Your task to perform on an android device: turn off javascript in the chrome app Image 0: 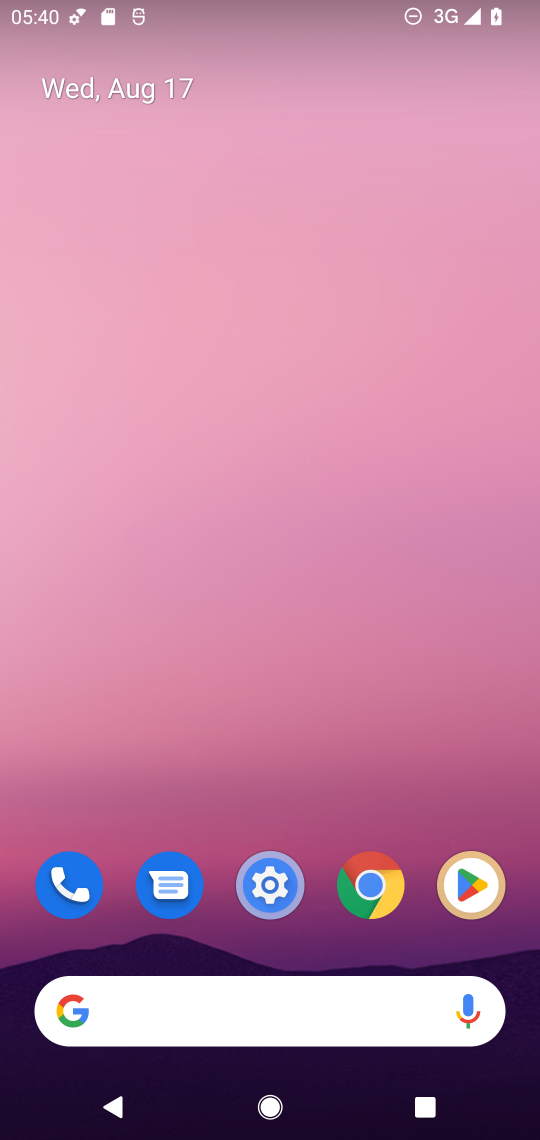
Step 0: drag from (433, 818) to (506, 148)
Your task to perform on an android device: turn off javascript in the chrome app Image 1: 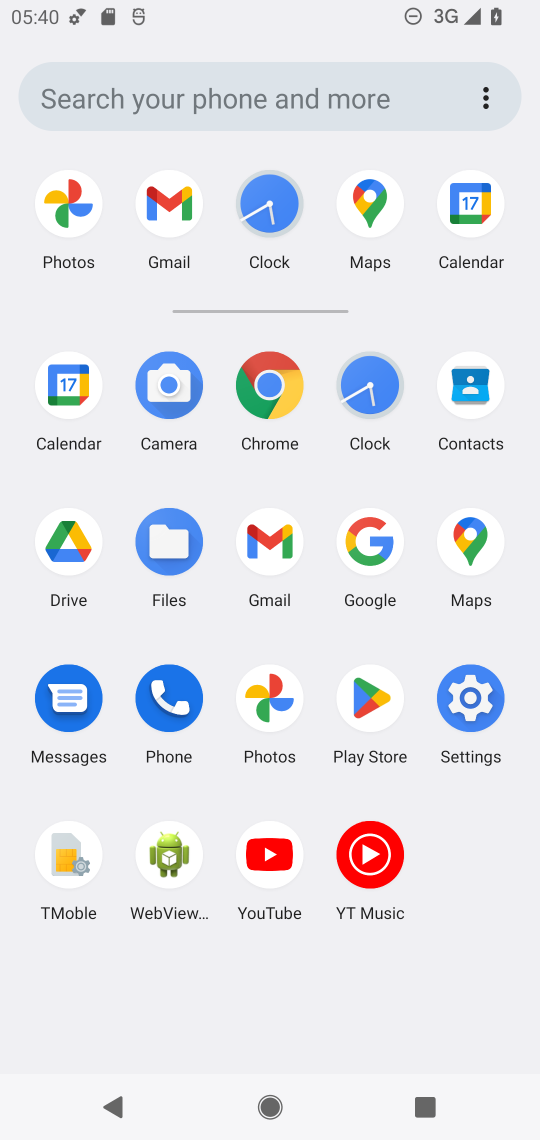
Step 1: click (269, 385)
Your task to perform on an android device: turn off javascript in the chrome app Image 2: 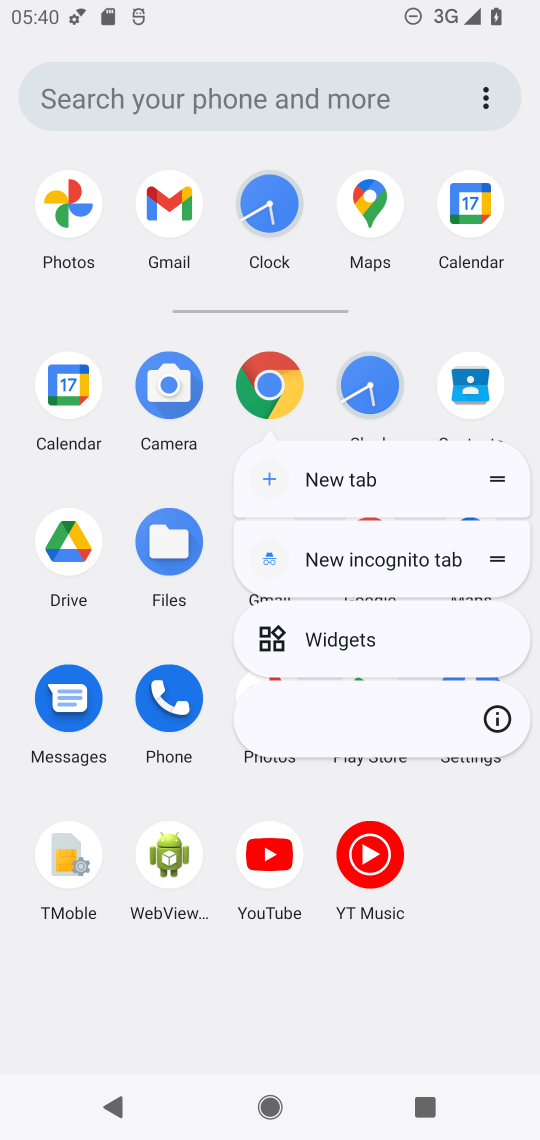
Step 2: click (269, 385)
Your task to perform on an android device: turn off javascript in the chrome app Image 3: 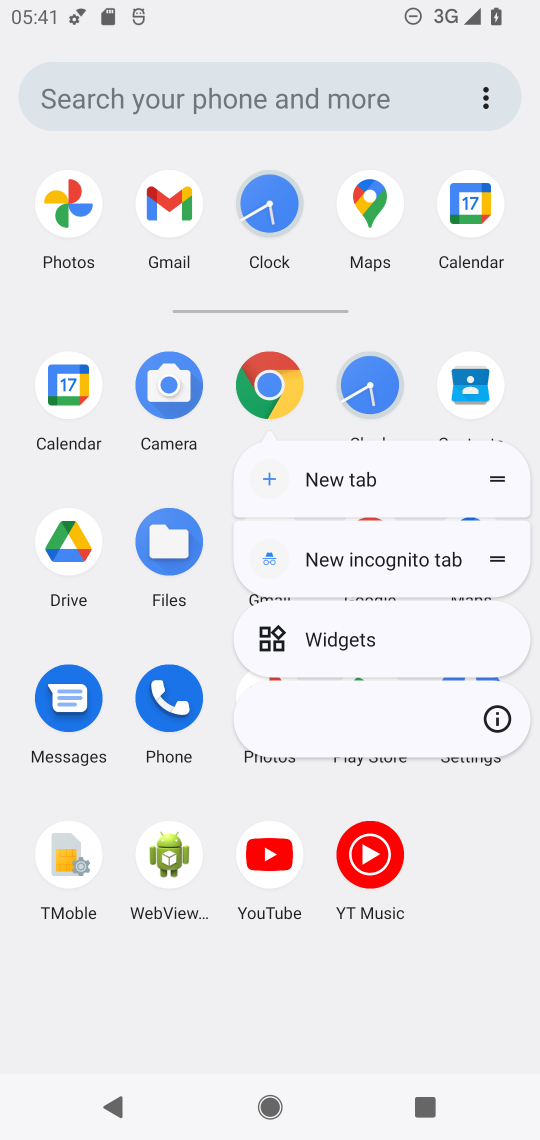
Step 3: click (329, 336)
Your task to perform on an android device: turn off javascript in the chrome app Image 4: 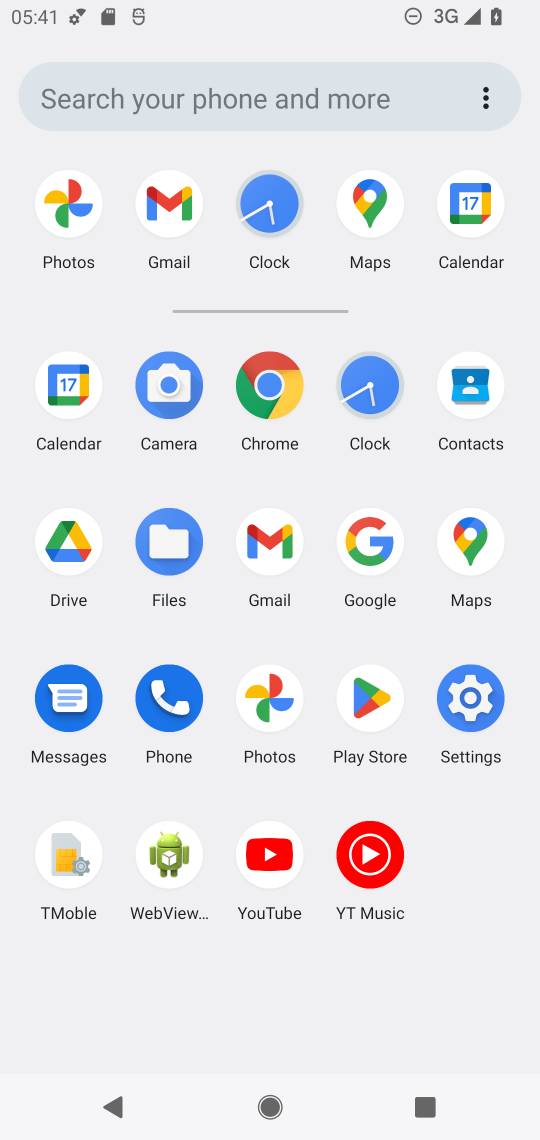
Step 4: click (270, 381)
Your task to perform on an android device: turn off javascript in the chrome app Image 5: 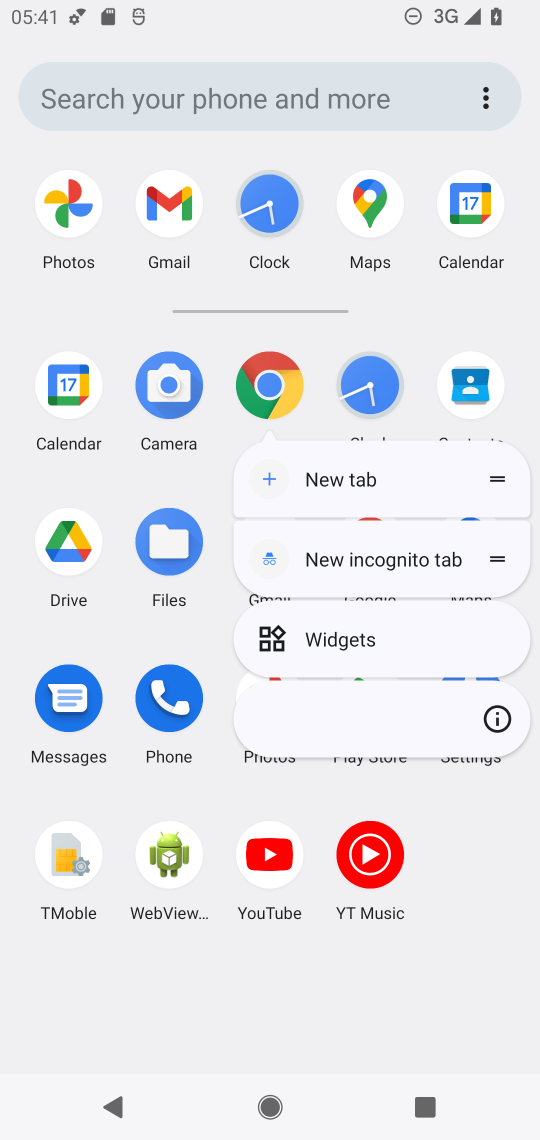
Step 5: click (402, 993)
Your task to perform on an android device: turn off javascript in the chrome app Image 6: 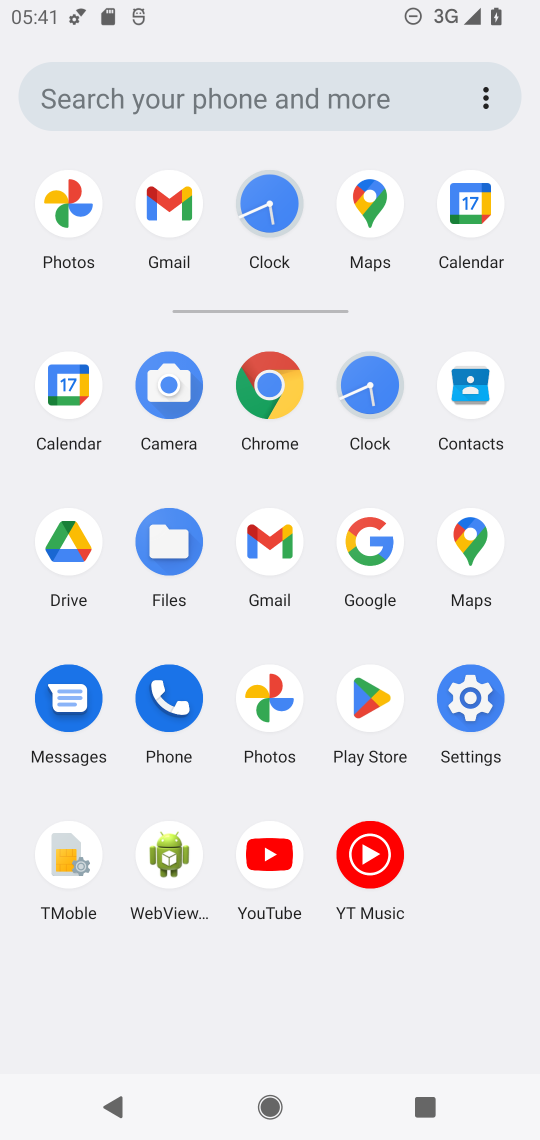
Step 6: click (267, 394)
Your task to perform on an android device: turn off javascript in the chrome app Image 7: 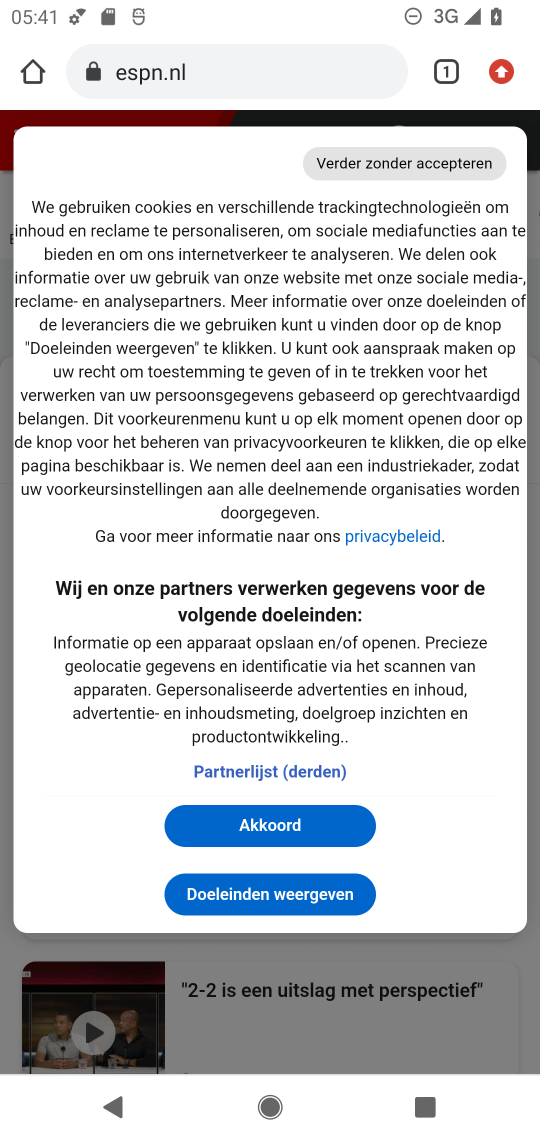
Step 7: drag from (535, 65) to (338, 974)
Your task to perform on an android device: turn off javascript in the chrome app Image 8: 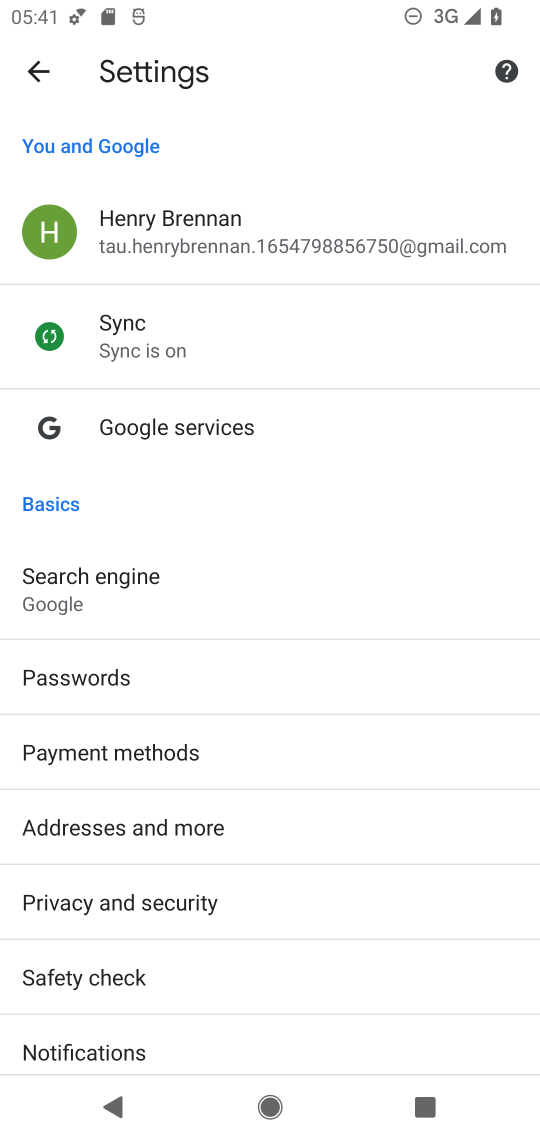
Step 8: drag from (259, 959) to (375, 287)
Your task to perform on an android device: turn off javascript in the chrome app Image 9: 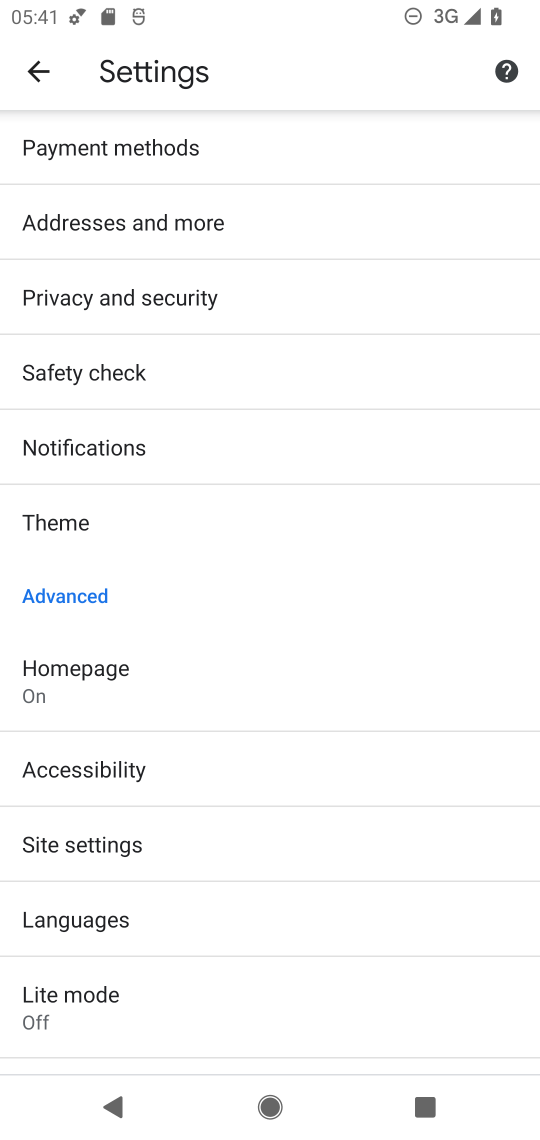
Step 9: click (116, 859)
Your task to perform on an android device: turn off javascript in the chrome app Image 10: 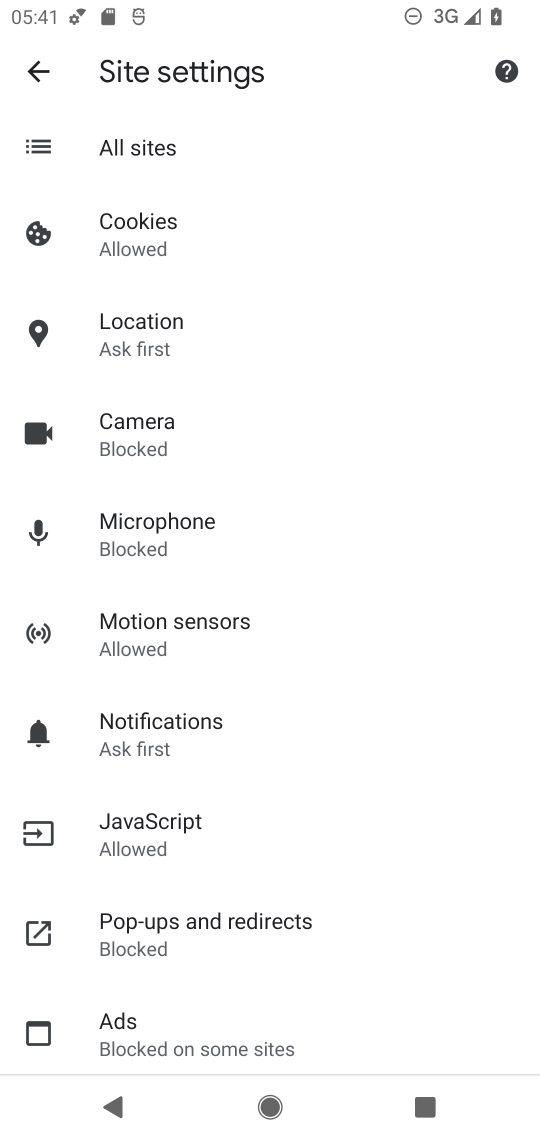
Step 10: click (161, 832)
Your task to perform on an android device: turn off javascript in the chrome app Image 11: 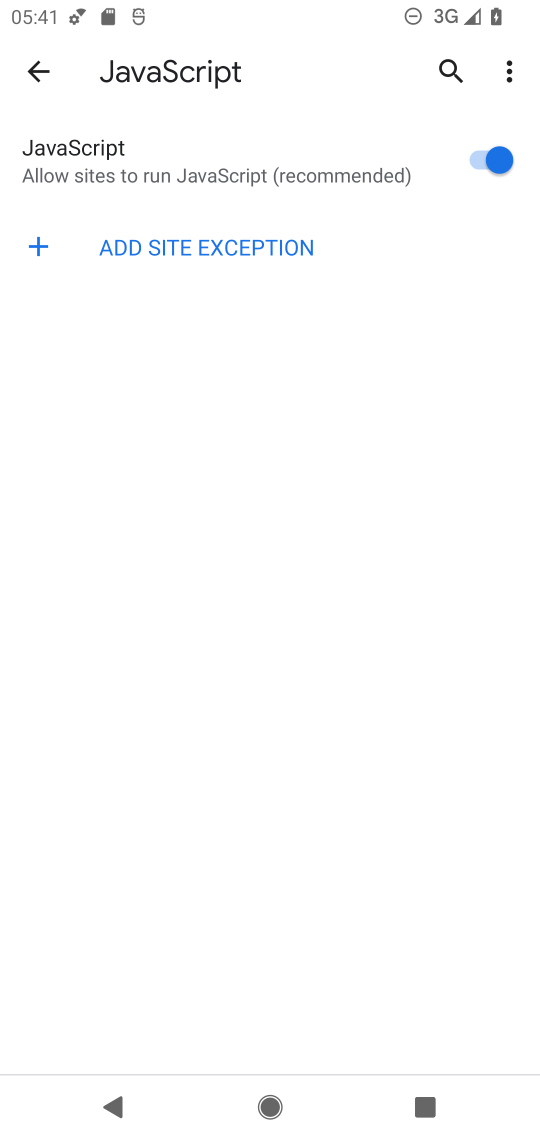
Step 11: click (506, 152)
Your task to perform on an android device: turn off javascript in the chrome app Image 12: 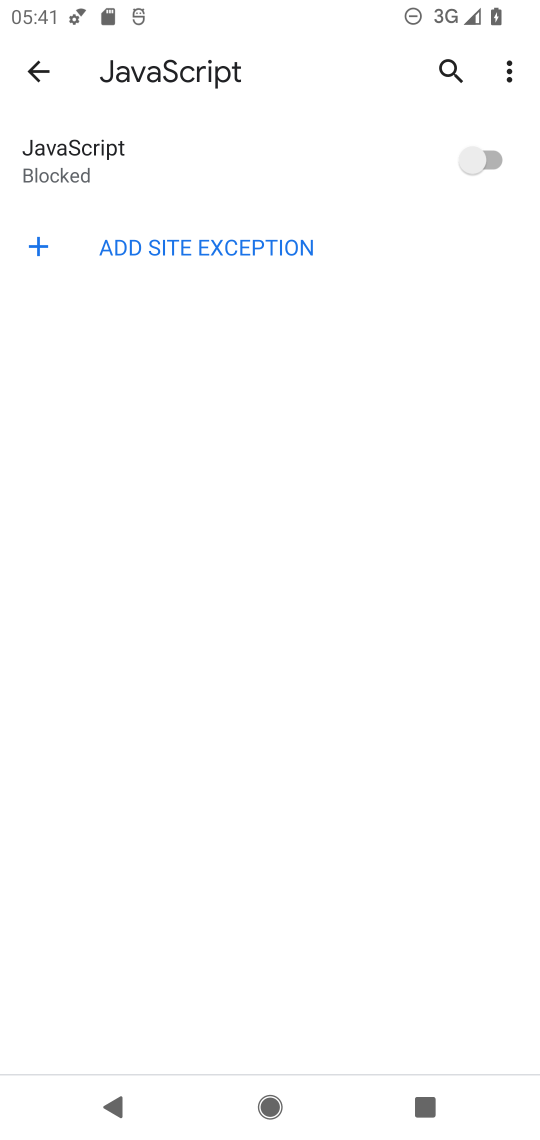
Step 12: task complete